Your task to perform on an android device: What's the weather? Image 0: 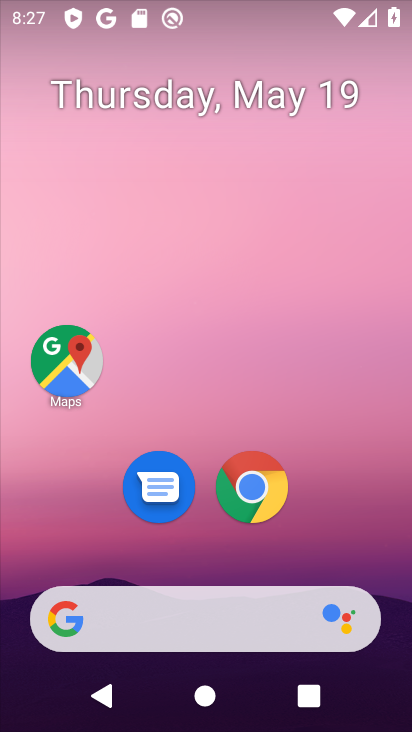
Step 0: click (192, 599)
Your task to perform on an android device: What's the weather? Image 1: 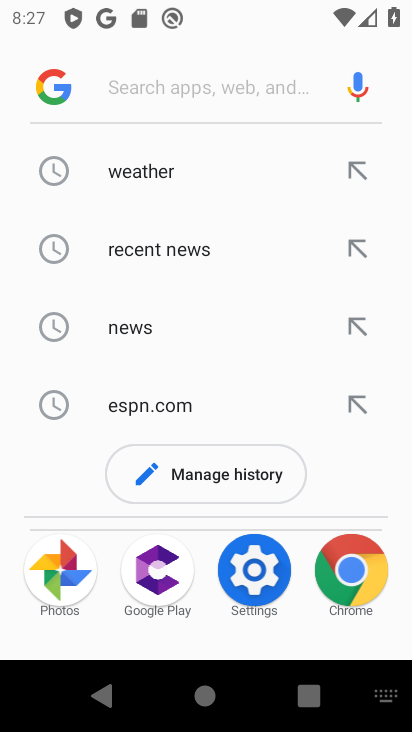
Step 1: click (155, 185)
Your task to perform on an android device: What's the weather? Image 2: 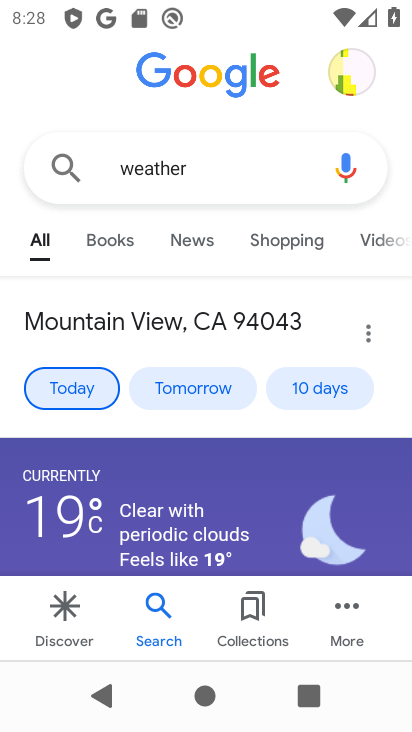
Step 2: task complete